Your task to perform on an android device: open app "Gmail" (install if not already installed), go to login, and select forgot password Image 0: 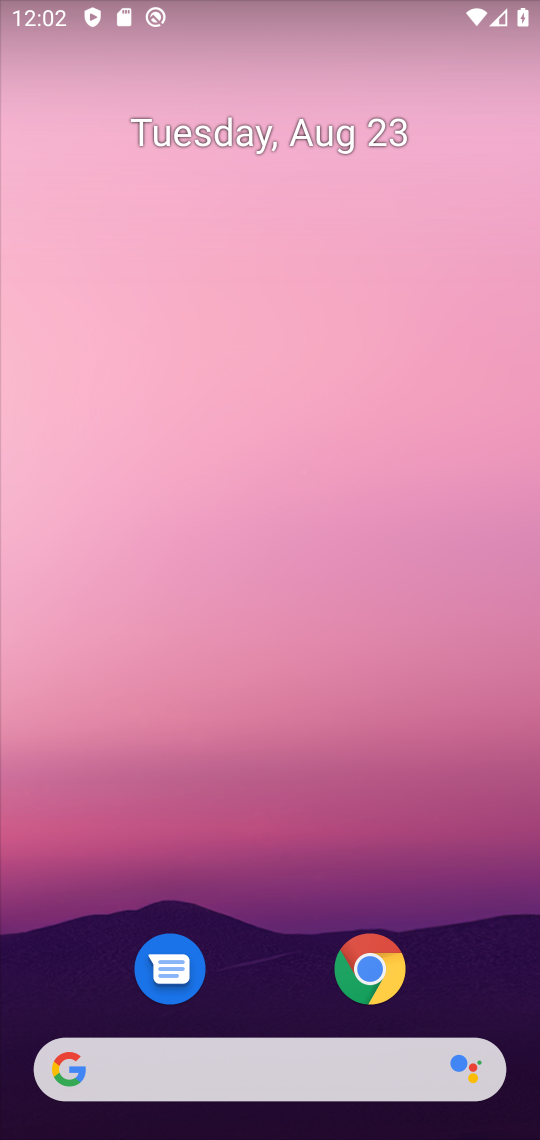
Step 0: drag from (323, 912) to (302, 139)
Your task to perform on an android device: open app "Gmail" (install if not already installed), go to login, and select forgot password Image 1: 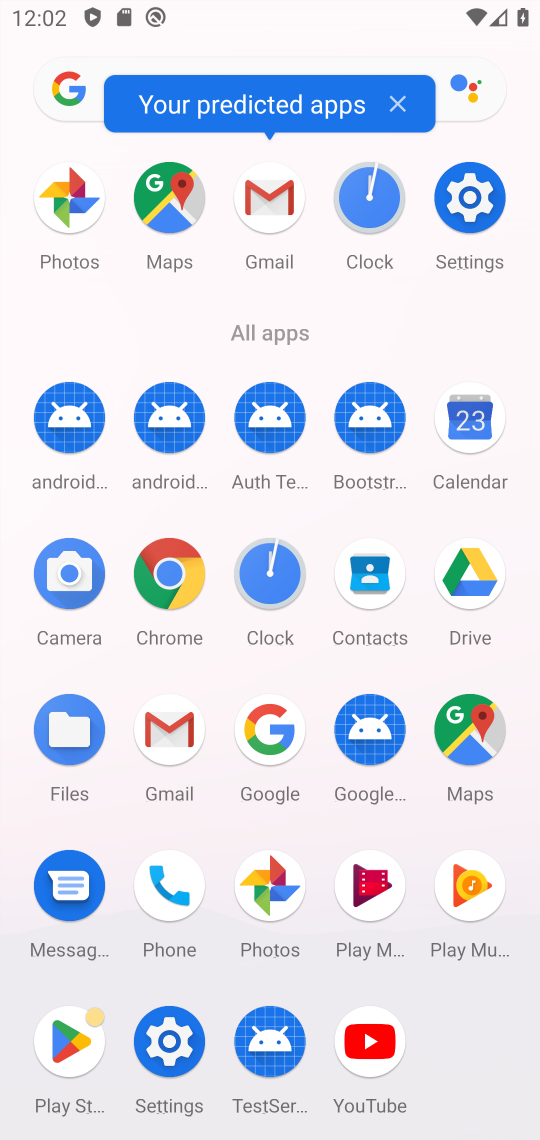
Step 1: click (176, 731)
Your task to perform on an android device: open app "Gmail" (install if not already installed), go to login, and select forgot password Image 2: 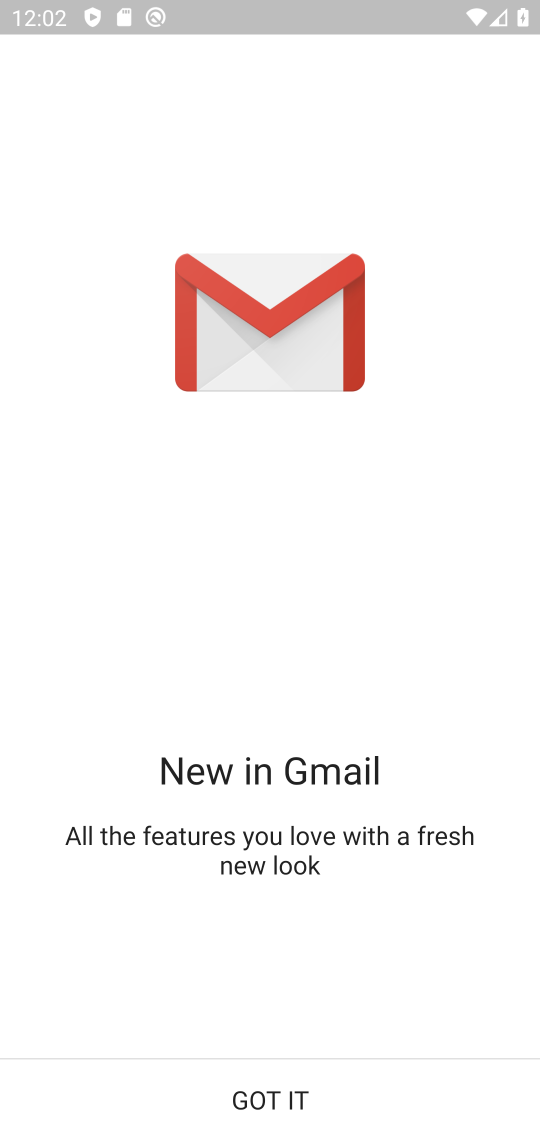
Step 2: click (265, 1097)
Your task to perform on an android device: open app "Gmail" (install if not already installed), go to login, and select forgot password Image 3: 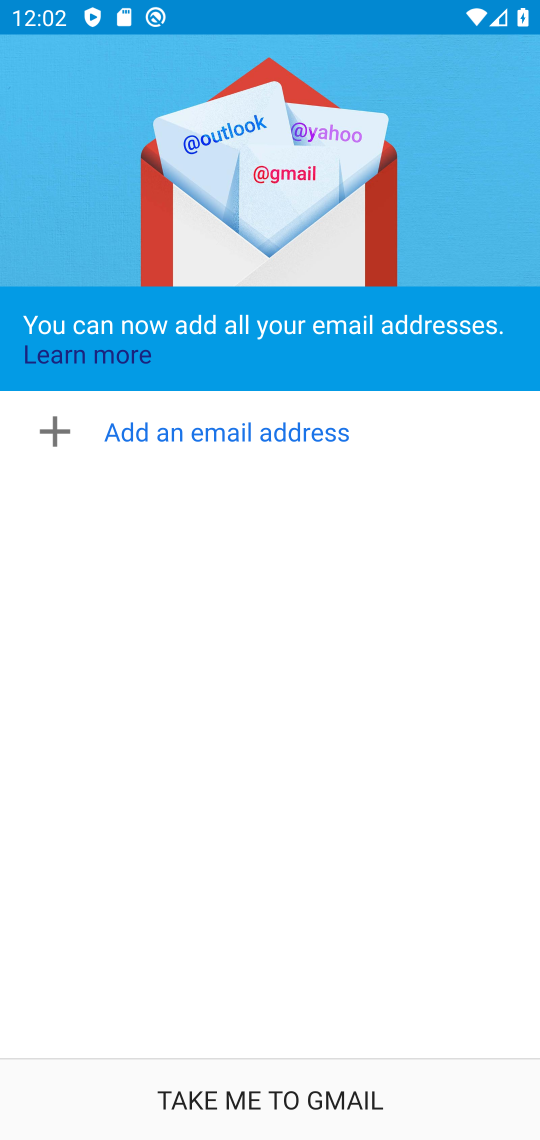
Step 3: click (265, 1097)
Your task to perform on an android device: open app "Gmail" (install if not already installed), go to login, and select forgot password Image 4: 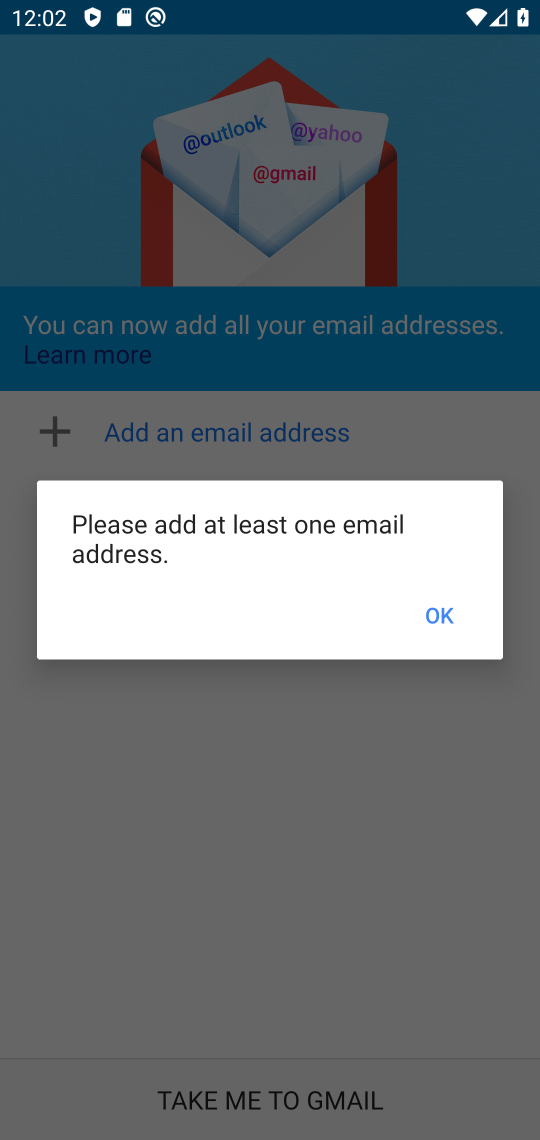
Step 4: click (424, 615)
Your task to perform on an android device: open app "Gmail" (install if not already installed), go to login, and select forgot password Image 5: 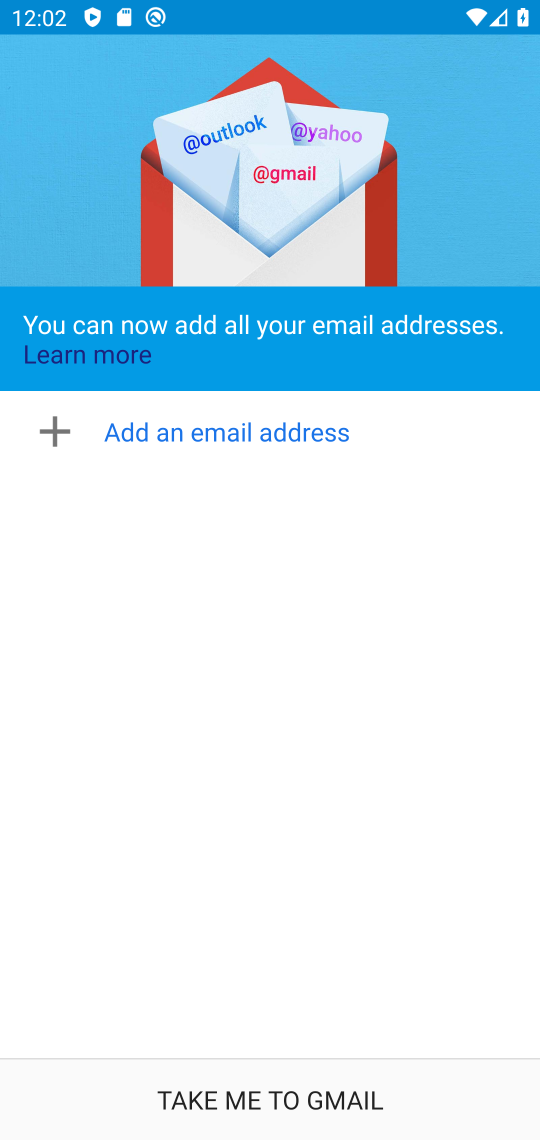
Step 5: click (244, 424)
Your task to perform on an android device: open app "Gmail" (install if not already installed), go to login, and select forgot password Image 6: 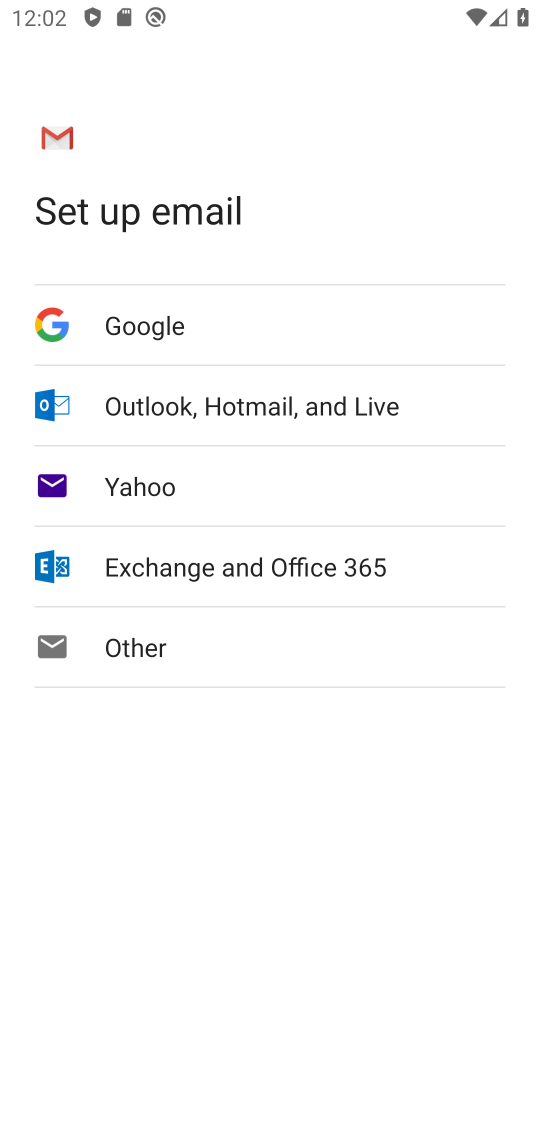
Step 6: click (146, 324)
Your task to perform on an android device: open app "Gmail" (install if not already installed), go to login, and select forgot password Image 7: 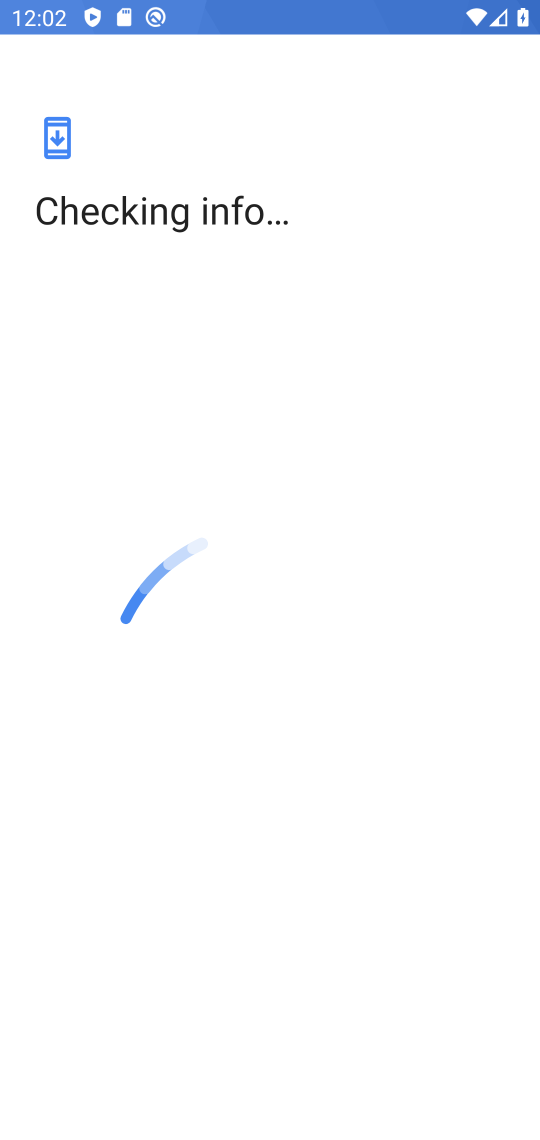
Step 7: task complete